Your task to perform on an android device: Open Yahoo.com Image 0: 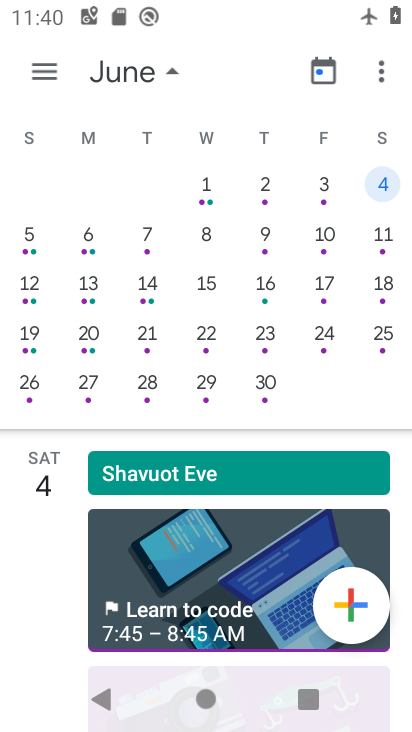
Step 0: press back button
Your task to perform on an android device: Open Yahoo.com Image 1: 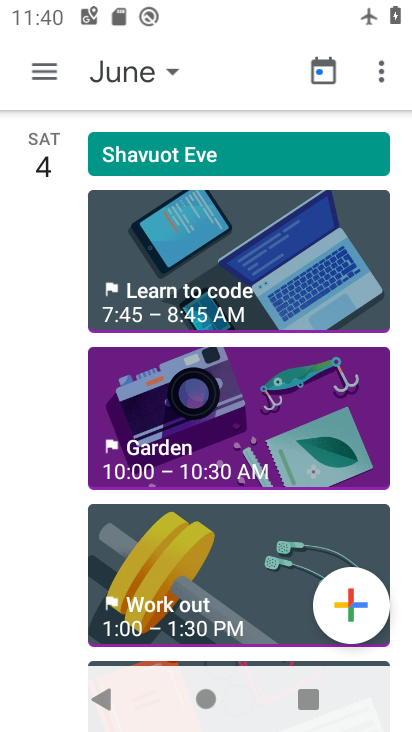
Step 1: press back button
Your task to perform on an android device: Open Yahoo.com Image 2: 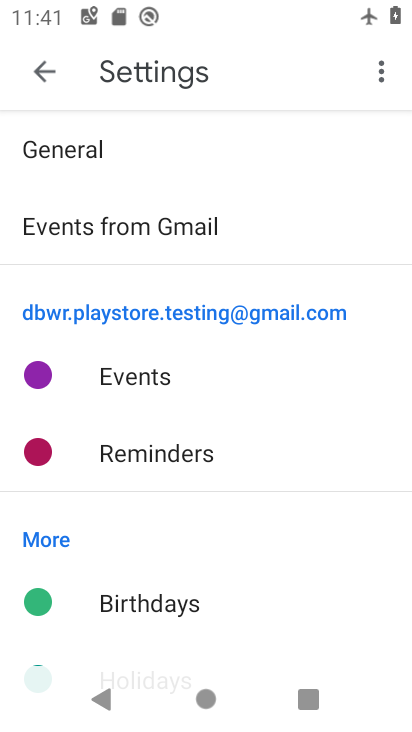
Step 2: press home button
Your task to perform on an android device: Open Yahoo.com Image 3: 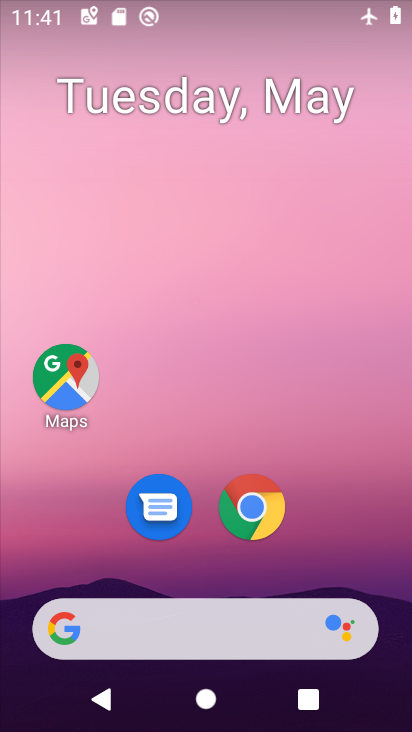
Step 3: drag from (263, 709) to (247, 314)
Your task to perform on an android device: Open Yahoo.com Image 4: 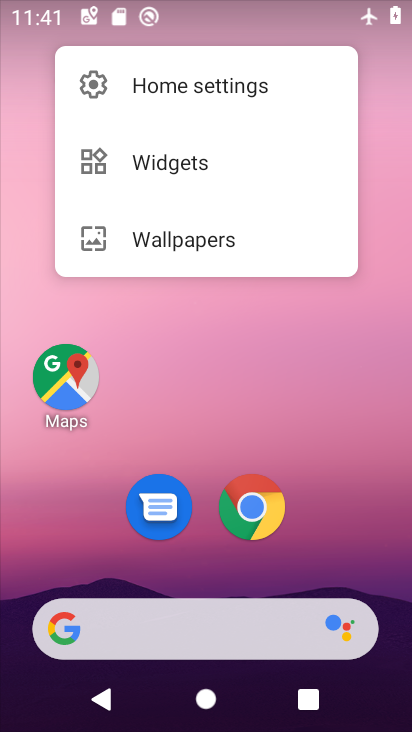
Step 4: press back button
Your task to perform on an android device: Open Yahoo.com Image 5: 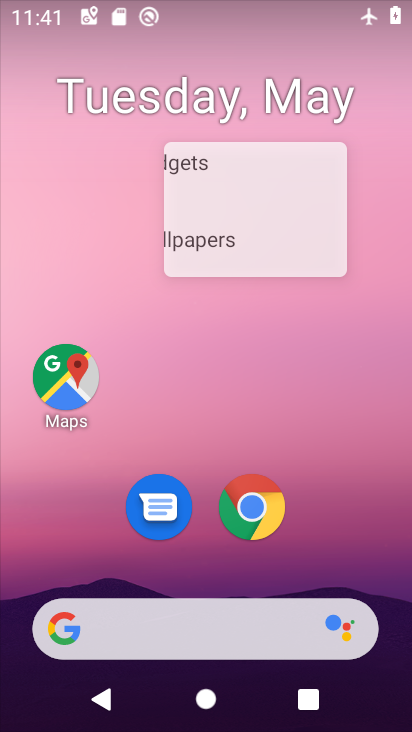
Step 5: press back button
Your task to perform on an android device: Open Yahoo.com Image 6: 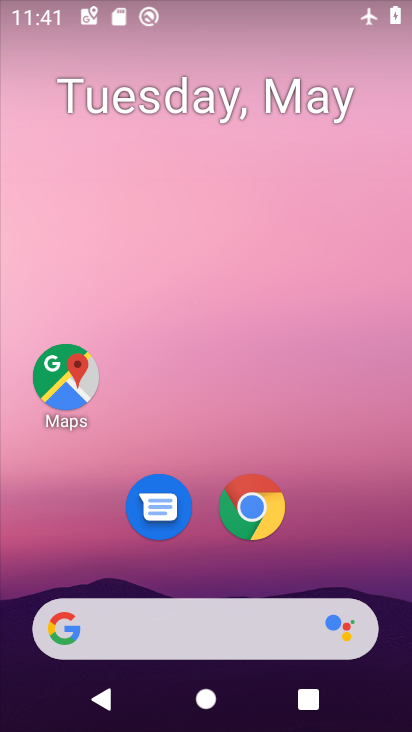
Step 6: drag from (253, 714) to (195, 137)
Your task to perform on an android device: Open Yahoo.com Image 7: 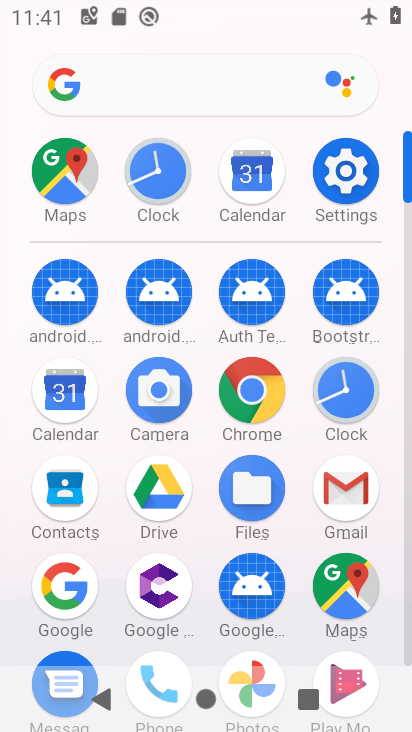
Step 7: click (256, 390)
Your task to perform on an android device: Open Yahoo.com Image 8: 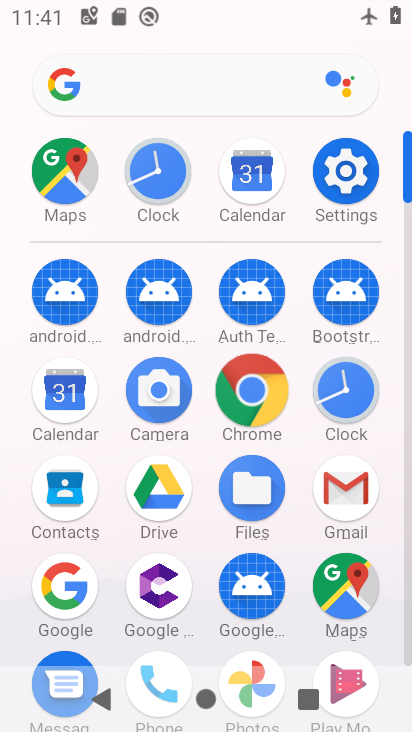
Step 8: click (255, 390)
Your task to perform on an android device: Open Yahoo.com Image 9: 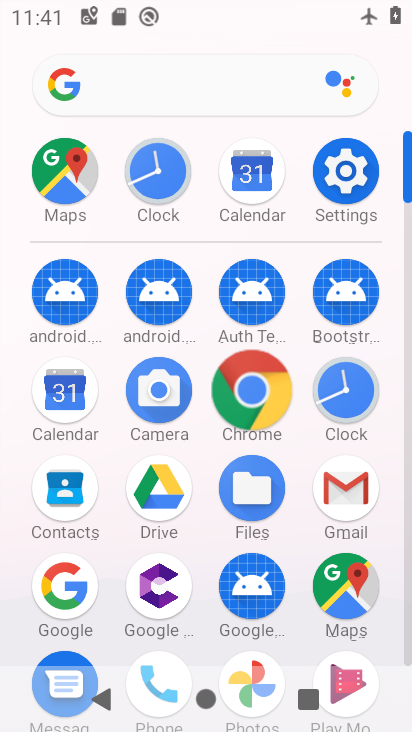
Step 9: click (257, 385)
Your task to perform on an android device: Open Yahoo.com Image 10: 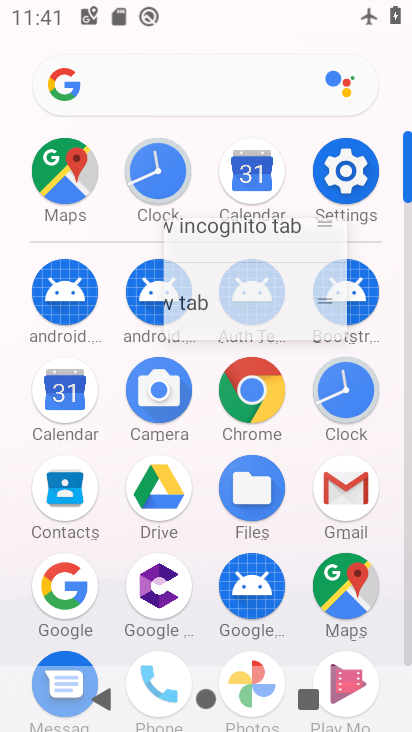
Step 10: click (260, 382)
Your task to perform on an android device: Open Yahoo.com Image 11: 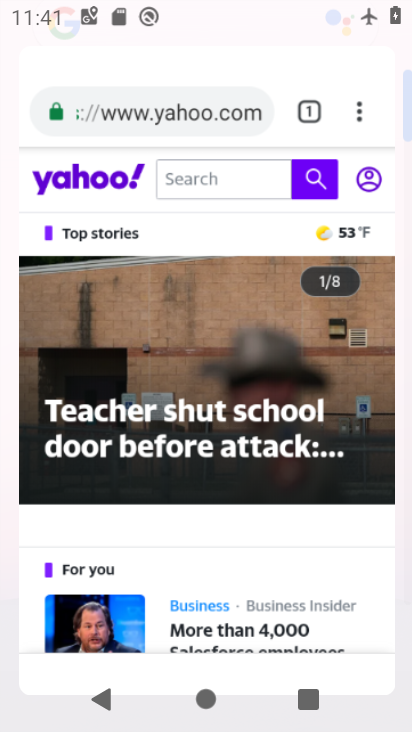
Step 11: click (260, 382)
Your task to perform on an android device: Open Yahoo.com Image 12: 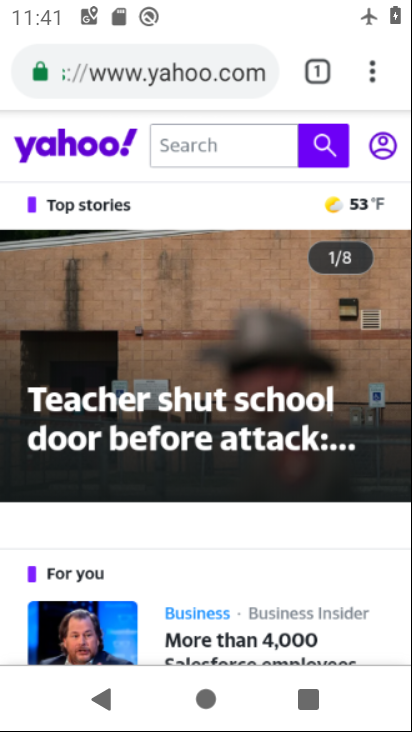
Step 12: click (262, 381)
Your task to perform on an android device: Open Yahoo.com Image 13: 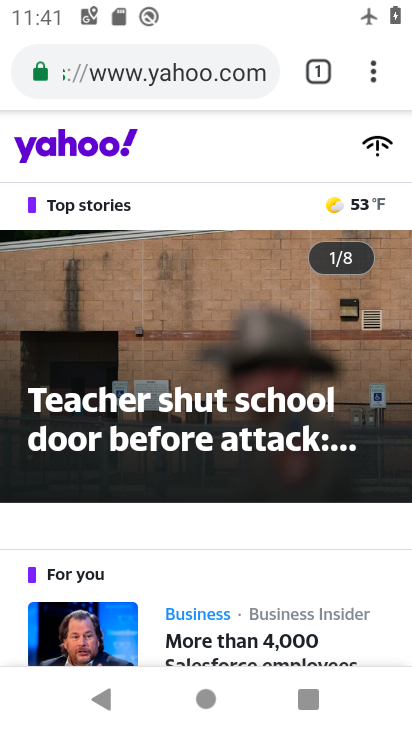
Step 13: task complete